Your task to perform on an android device: turn on the 12-hour format for clock Image 0: 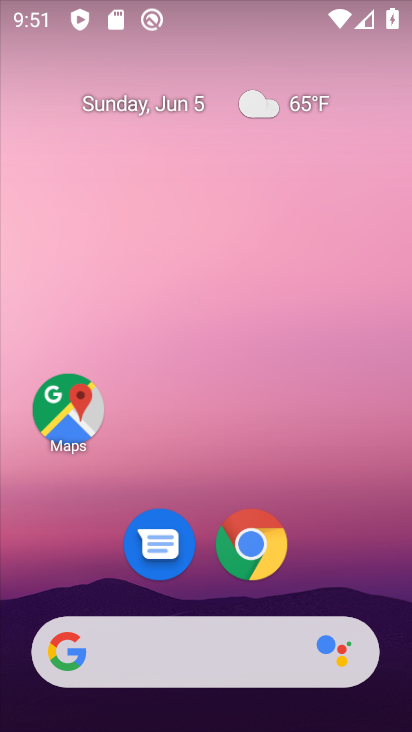
Step 0: drag from (358, 568) to (233, 40)
Your task to perform on an android device: turn on the 12-hour format for clock Image 1: 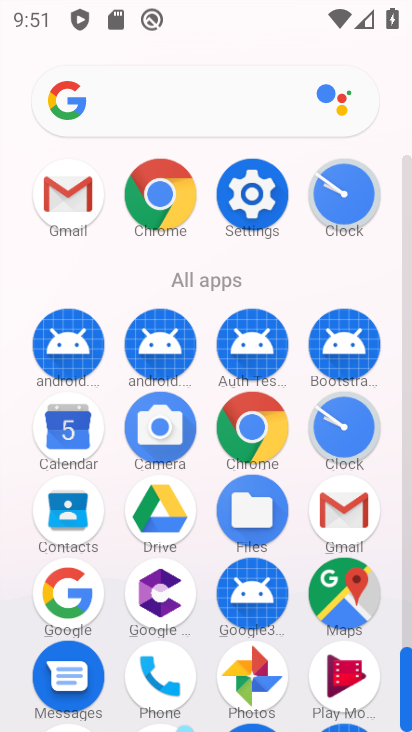
Step 1: click (311, 190)
Your task to perform on an android device: turn on the 12-hour format for clock Image 2: 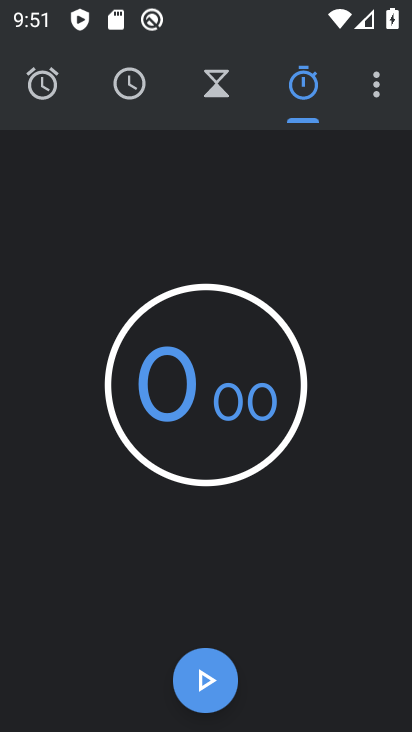
Step 2: task complete